Your task to perform on an android device: check the backup settings in the google photos Image 0: 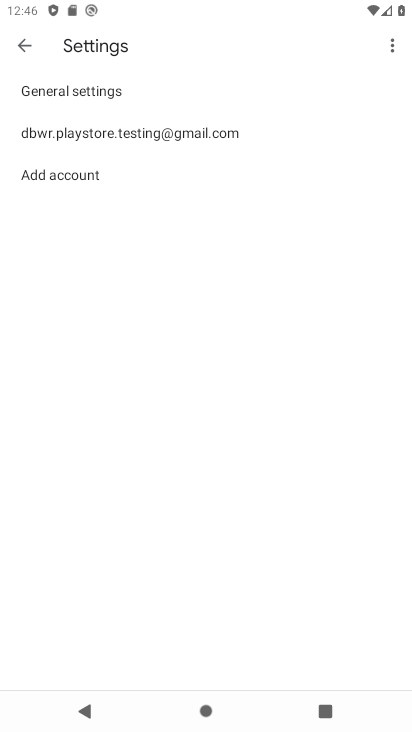
Step 0: press home button
Your task to perform on an android device: check the backup settings in the google photos Image 1: 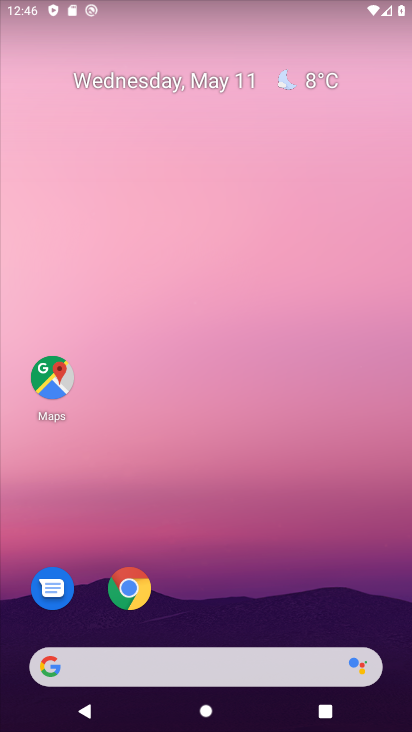
Step 1: drag from (302, 589) to (316, 165)
Your task to perform on an android device: check the backup settings in the google photos Image 2: 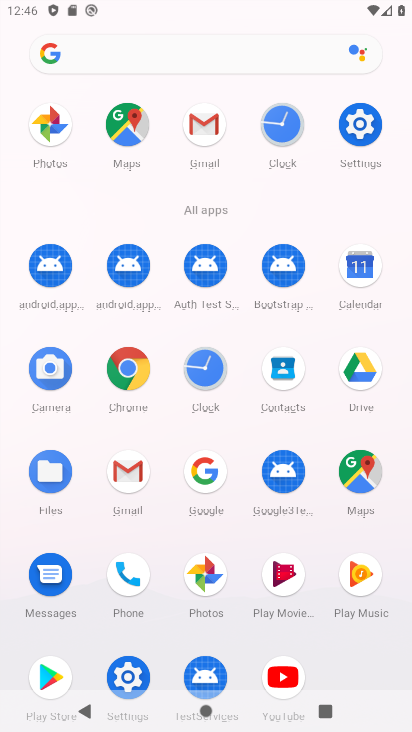
Step 2: click (51, 132)
Your task to perform on an android device: check the backup settings in the google photos Image 3: 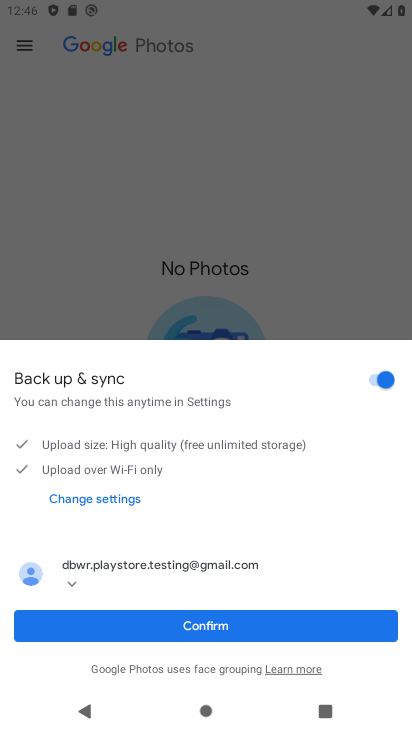
Step 3: click (226, 618)
Your task to perform on an android device: check the backup settings in the google photos Image 4: 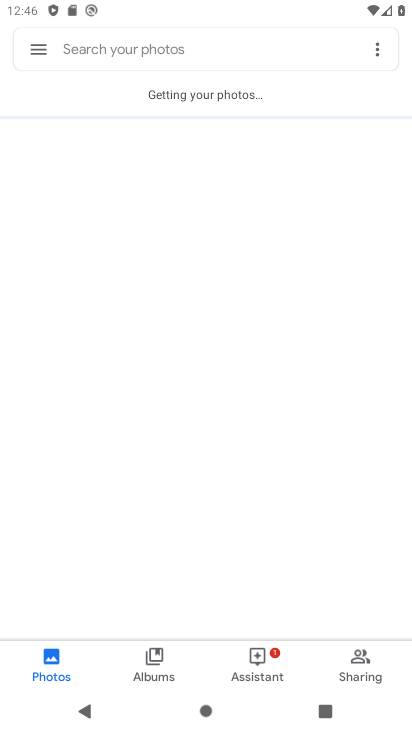
Step 4: click (44, 47)
Your task to perform on an android device: check the backup settings in the google photos Image 5: 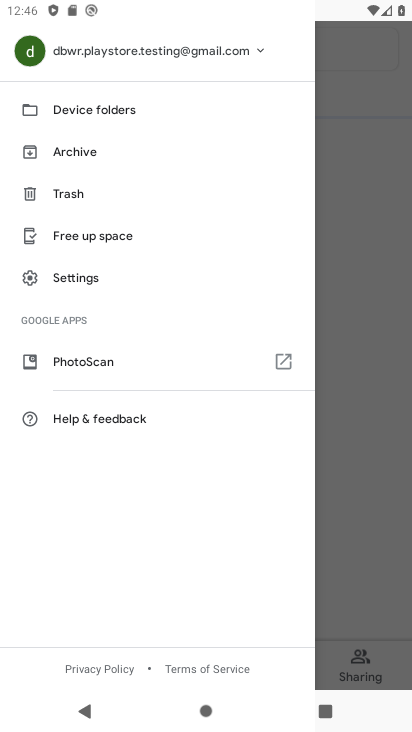
Step 5: click (95, 283)
Your task to perform on an android device: check the backup settings in the google photos Image 6: 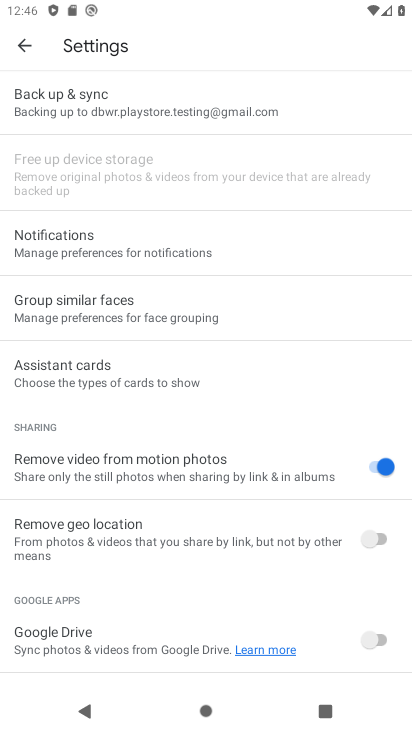
Step 6: click (98, 121)
Your task to perform on an android device: check the backup settings in the google photos Image 7: 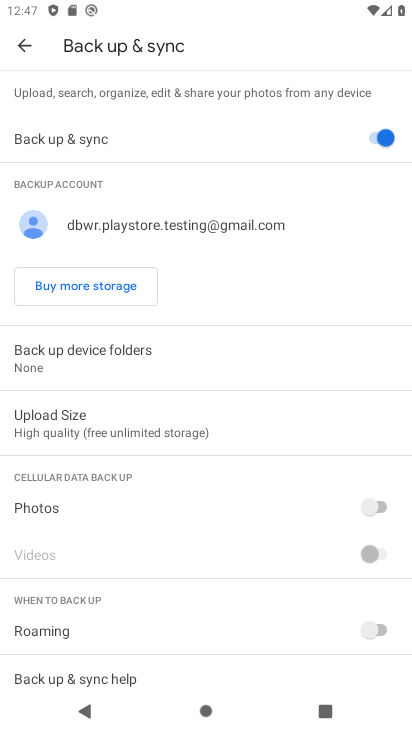
Step 7: task complete